Your task to perform on an android device: Is it going to rain today? Image 0: 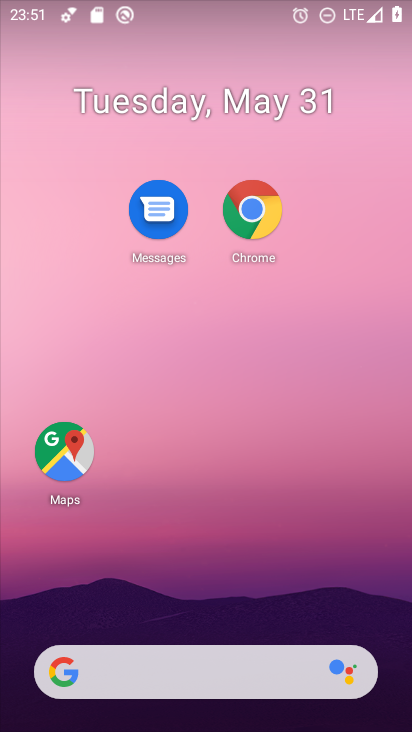
Step 0: press home button
Your task to perform on an android device: Is it going to rain today? Image 1: 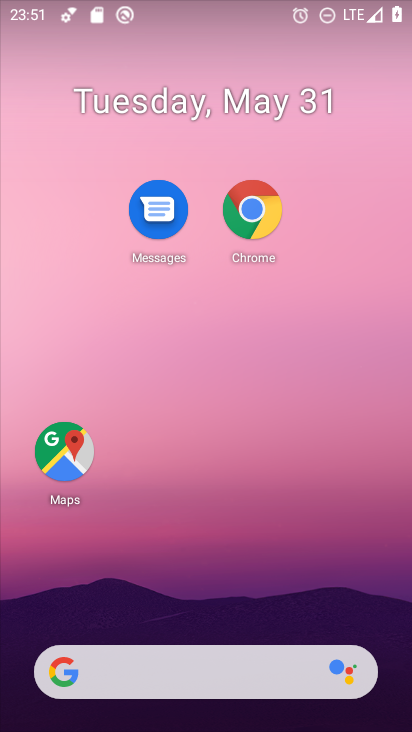
Step 1: drag from (10, 330) to (394, 334)
Your task to perform on an android device: Is it going to rain today? Image 2: 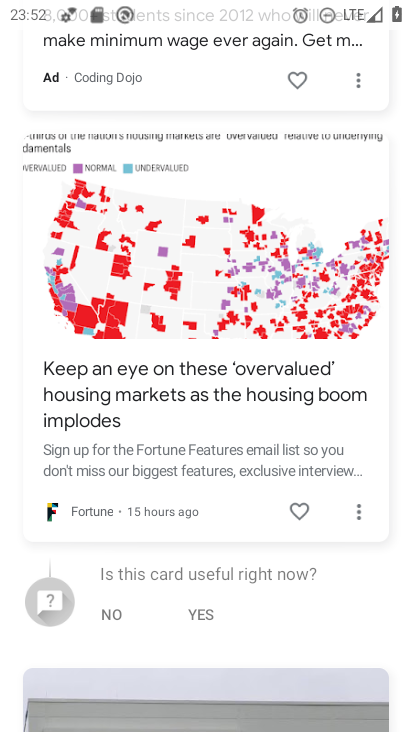
Step 2: drag from (216, 79) to (175, 692)
Your task to perform on an android device: Is it going to rain today? Image 3: 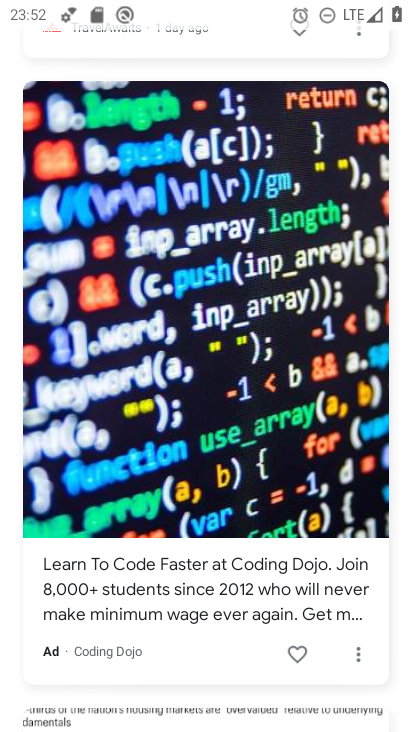
Step 3: drag from (222, 118) to (268, 703)
Your task to perform on an android device: Is it going to rain today? Image 4: 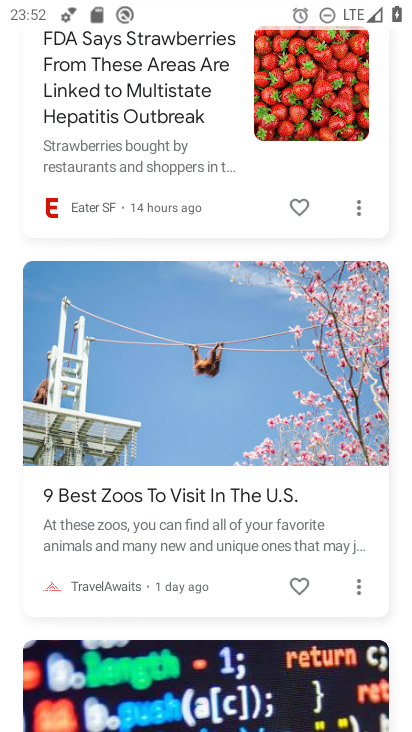
Step 4: drag from (227, 120) to (236, 731)
Your task to perform on an android device: Is it going to rain today? Image 5: 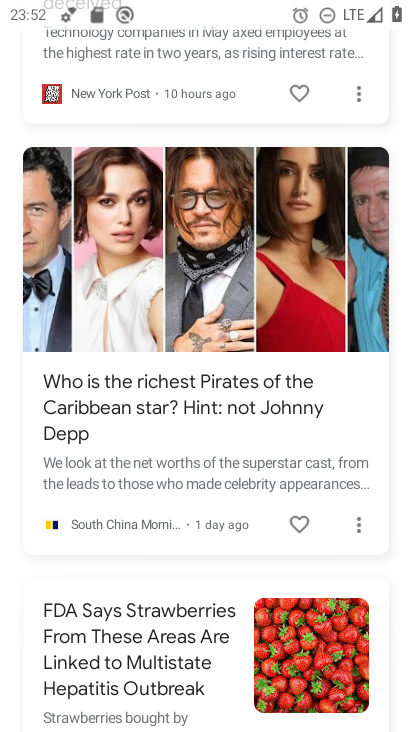
Step 5: drag from (230, 118) to (247, 721)
Your task to perform on an android device: Is it going to rain today? Image 6: 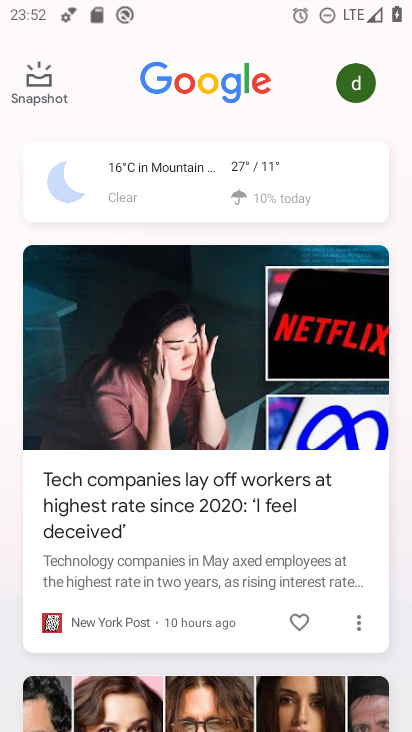
Step 6: click (266, 169)
Your task to perform on an android device: Is it going to rain today? Image 7: 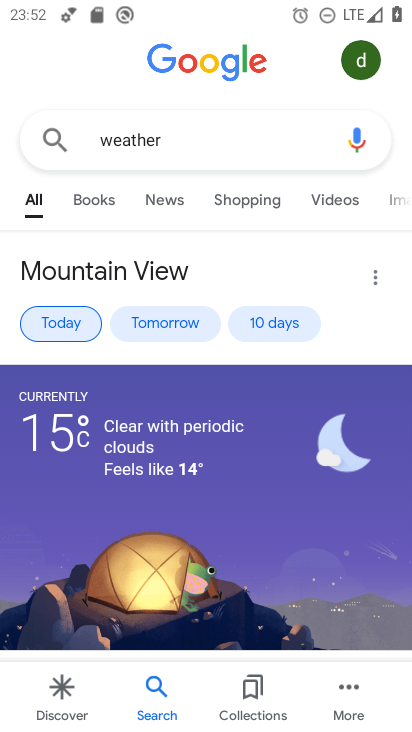
Step 7: task complete